Your task to perform on an android device: turn pop-ups on in chrome Image 0: 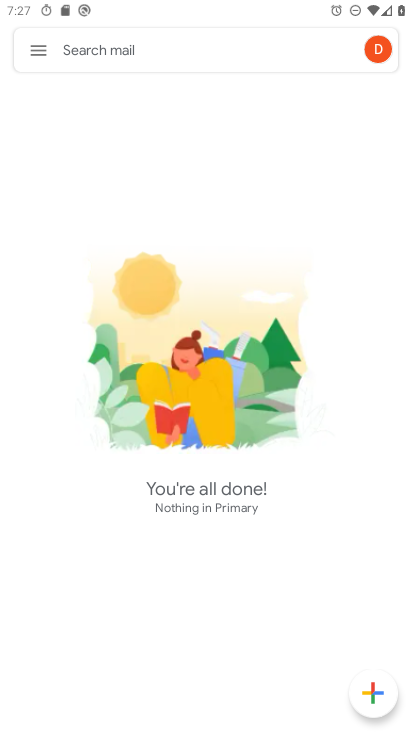
Step 0: press home button
Your task to perform on an android device: turn pop-ups on in chrome Image 1: 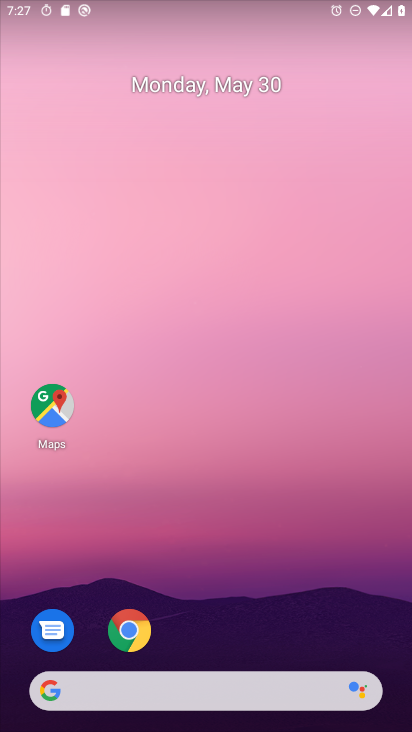
Step 1: drag from (320, 616) to (303, 47)
Your task to perform on an android device: turn pop-ups on in chrome Image 2: 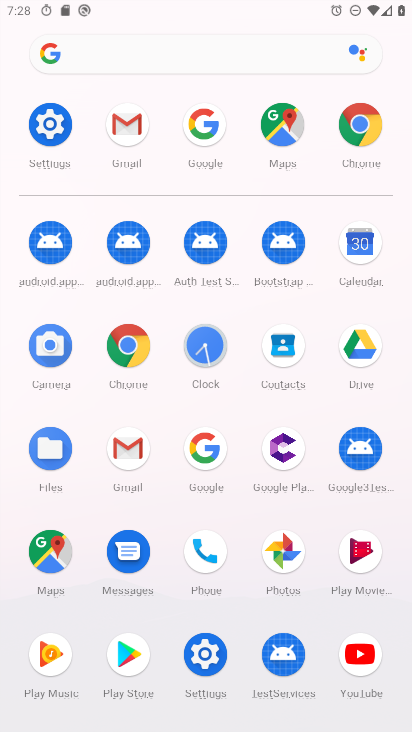
Step 2: click (357, 124)
Your task to perform on an android device: turn pop-ups on in chrome Image 3: 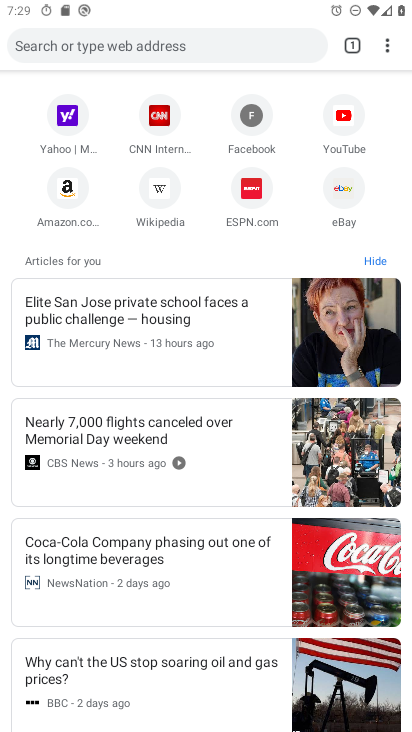
Step 3: click (387, 37)
Your task to perform on an android device: turn pop-ups on in chrome Image 4: 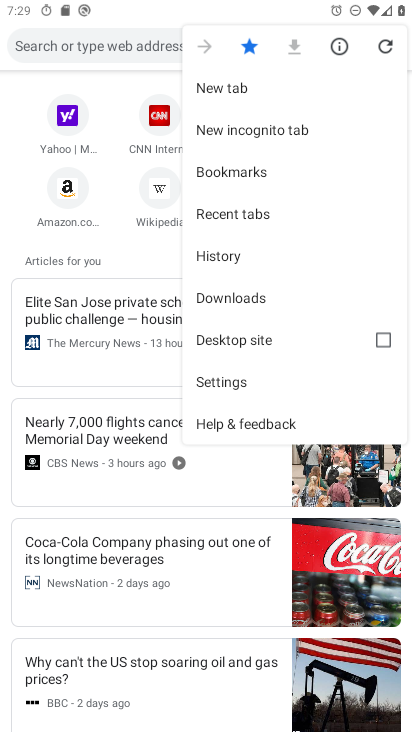
Step 4: click (228, 379)
Your task to perform on an android device: turn pop-ups on in chrome Image 5: 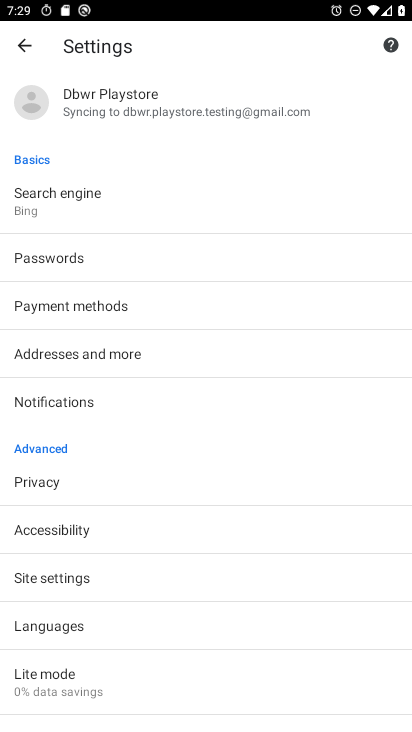
Step 5: click (114, 572)
Your task to perform on an android device: turn pop-ups on in chrome Image 6: 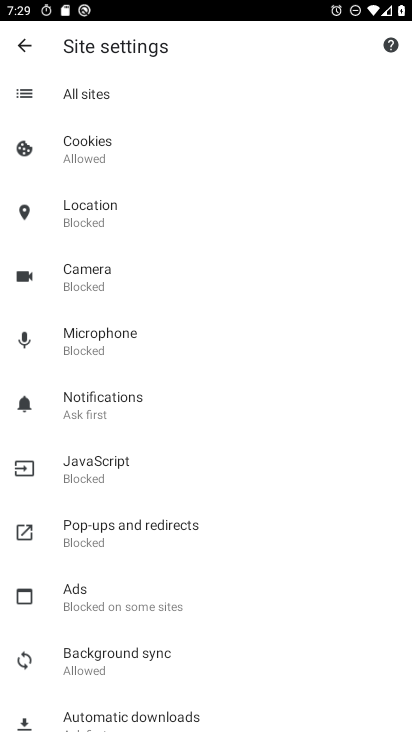
Step 6: click (139, 543)
Your task to perform on an android device: turn pop-ups on in chrome Image 7: 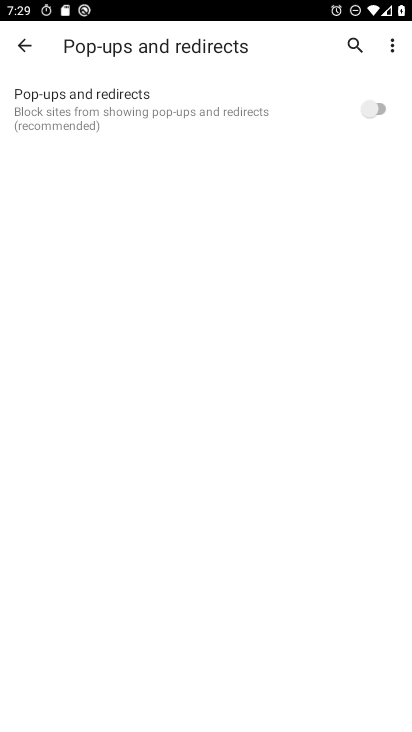
Step 7: click (371, 97)
Your task to perform on an android device: turn pop-ups on in chrome Image 8: 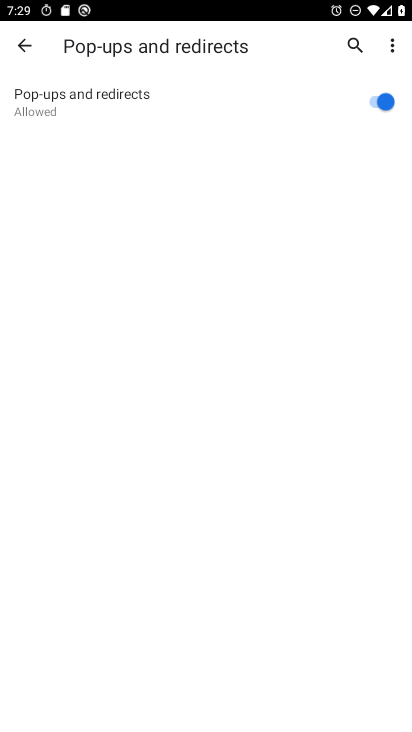
Step 8: task complete